Your task to perform on an android device: Open Google Image 0: 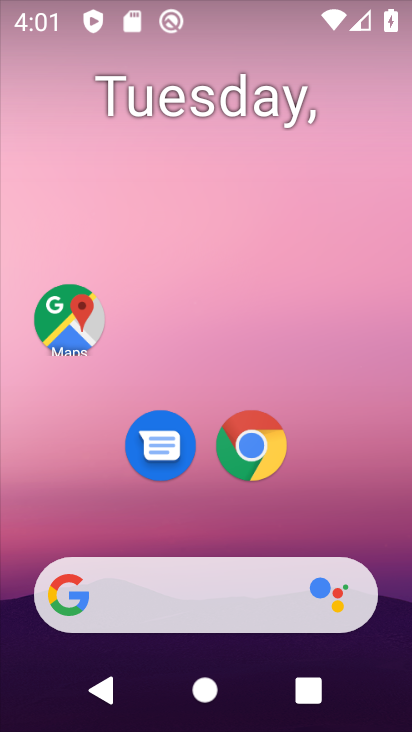
Step 0: drag from (385, 518) to (364, 173)
Your task to perform on an android device: Open Google Image 1: 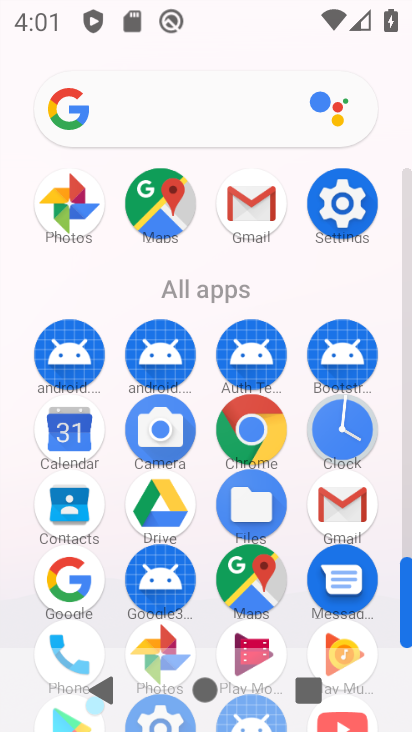
Step 1: click (82, 580)
Your task to perform on an android device: Open Google Image 2: 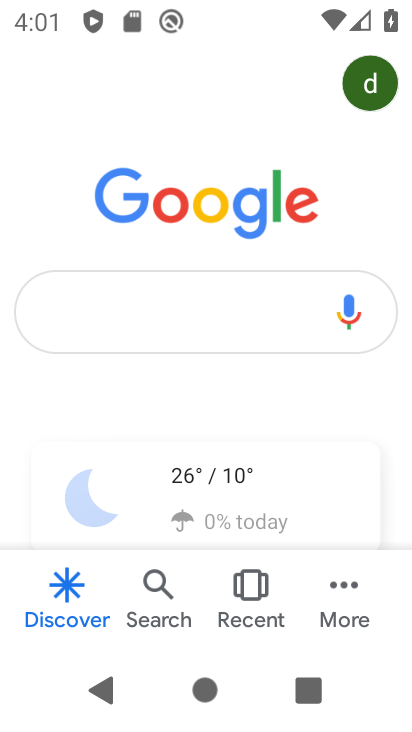
Step 2: task complete